Your task to perform on an android device: Open Google Maps Image 0: 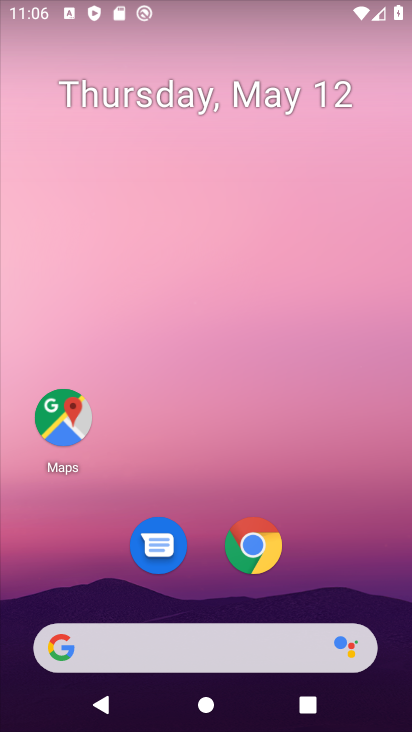
Step 0: drag from (256, 667) to (226, 116)
Your task to perform on an android device: Open Google Maps Image 1: 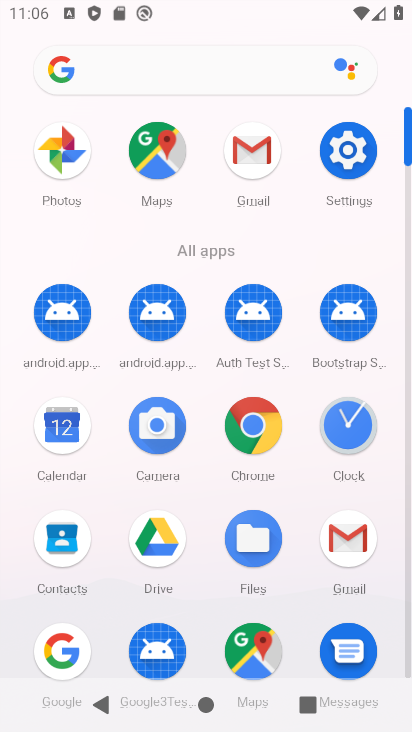
Step 1: click (245, 642)
Your task to perform on an android device: Open Google Maps Image 2: 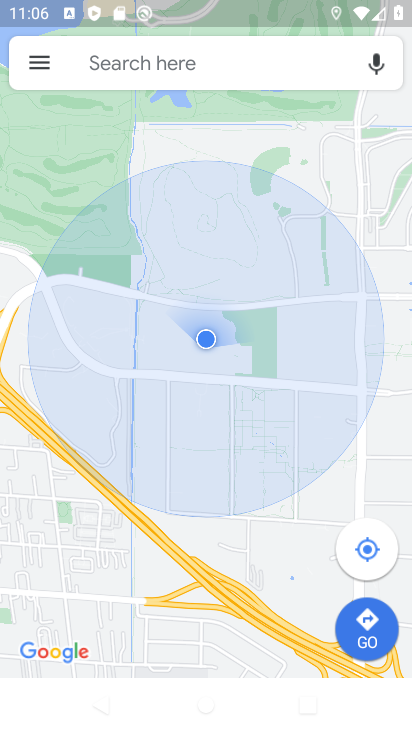
Step 2: click (198, 501)
Your task to perform on an android device: Open Google Maps Image 3: 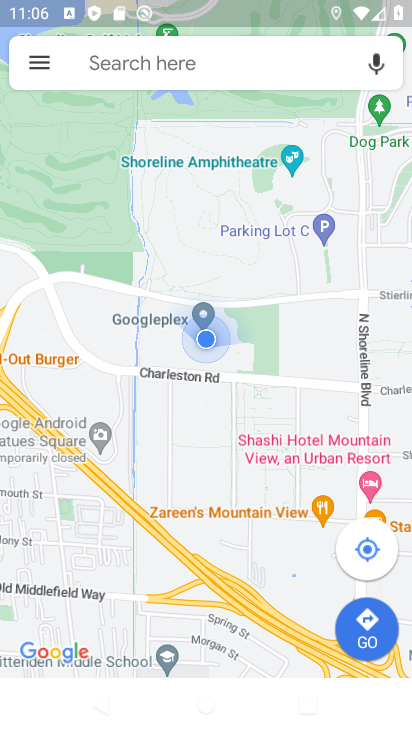
Step 3: task complete